Your task to perform on an android device: open app "Speedtest by Ookla" (install if not already installed) and go to login screen Image 0: 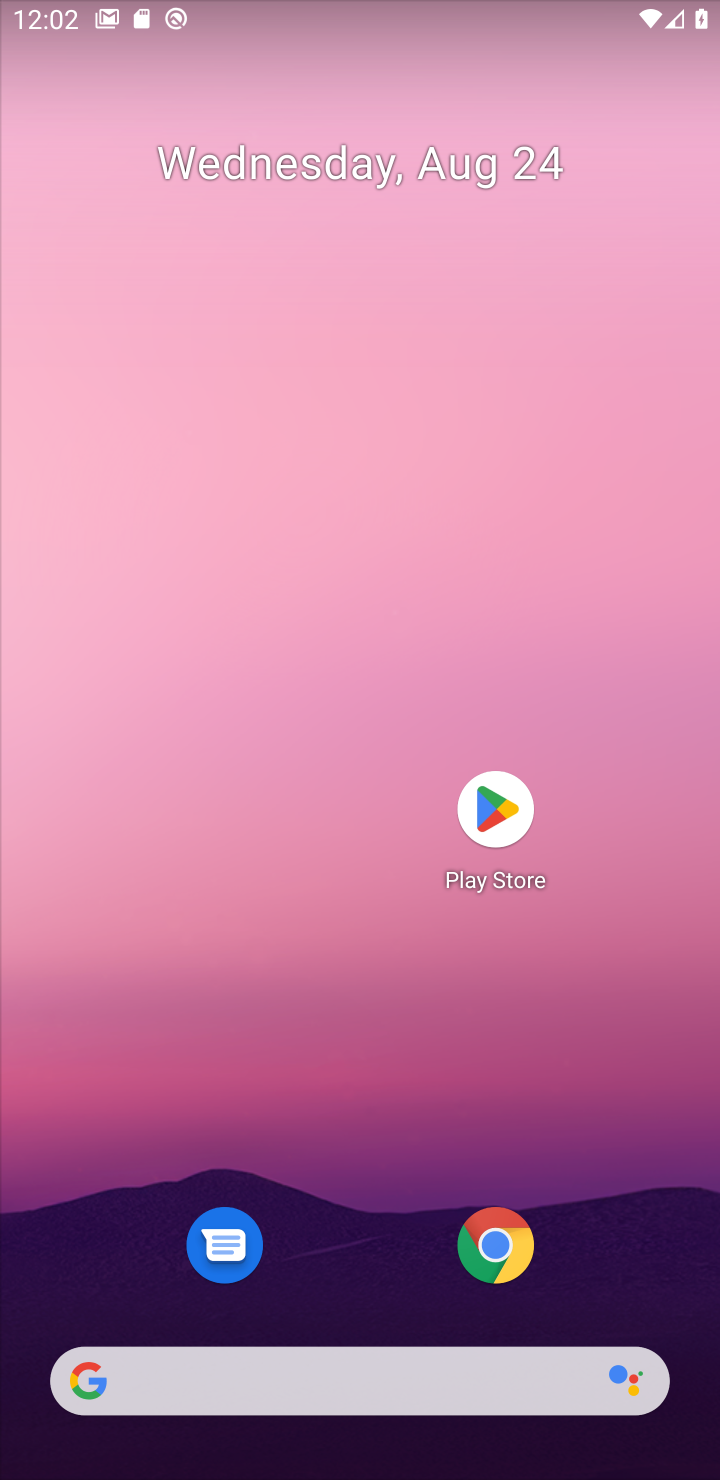
Step 0: press home button
Your task to perform on an android device: open app "Speedtest by Ookla" (install if not already installed) and go to login screen Image 1: 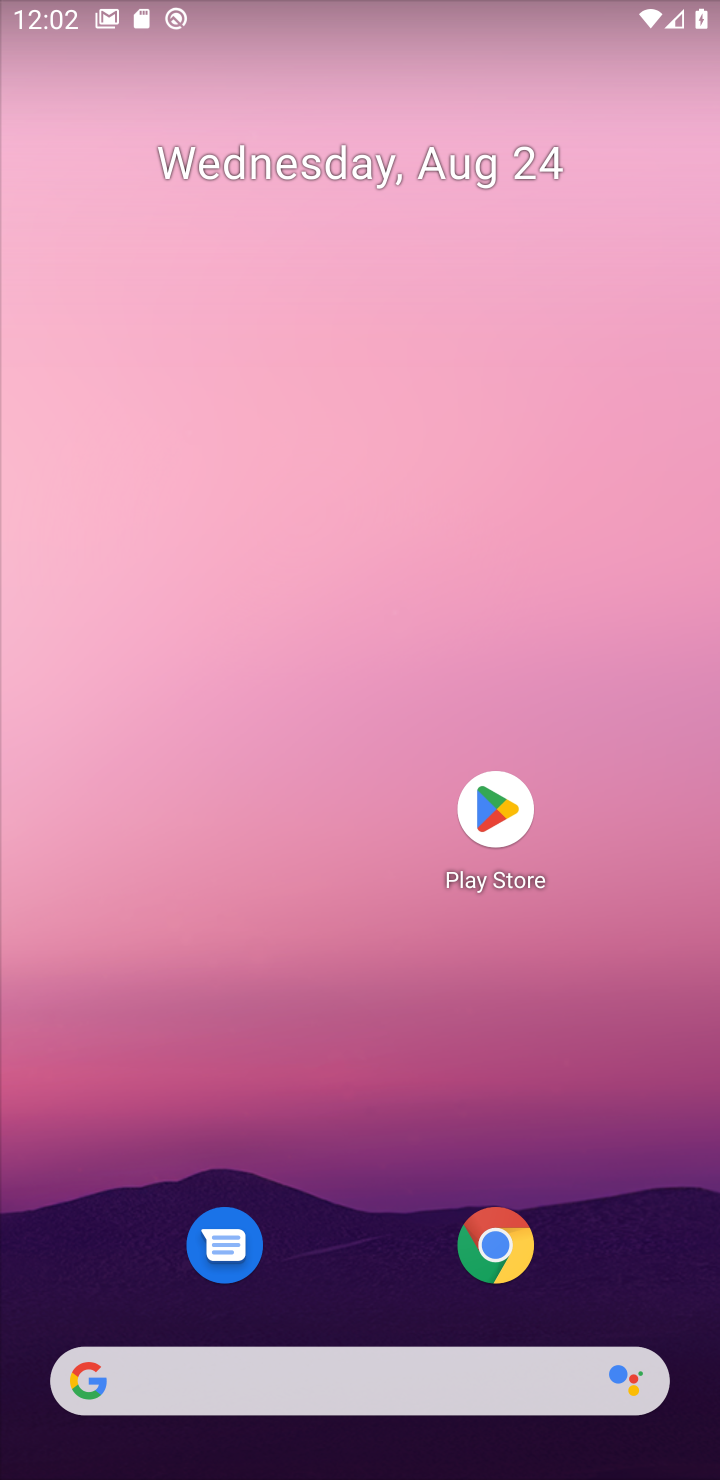
Step 1: click (499, 805)
Your task to perform on an android device: open app "Speedtest by Ookla" (install if not already installed) and go to login screen Image 2: 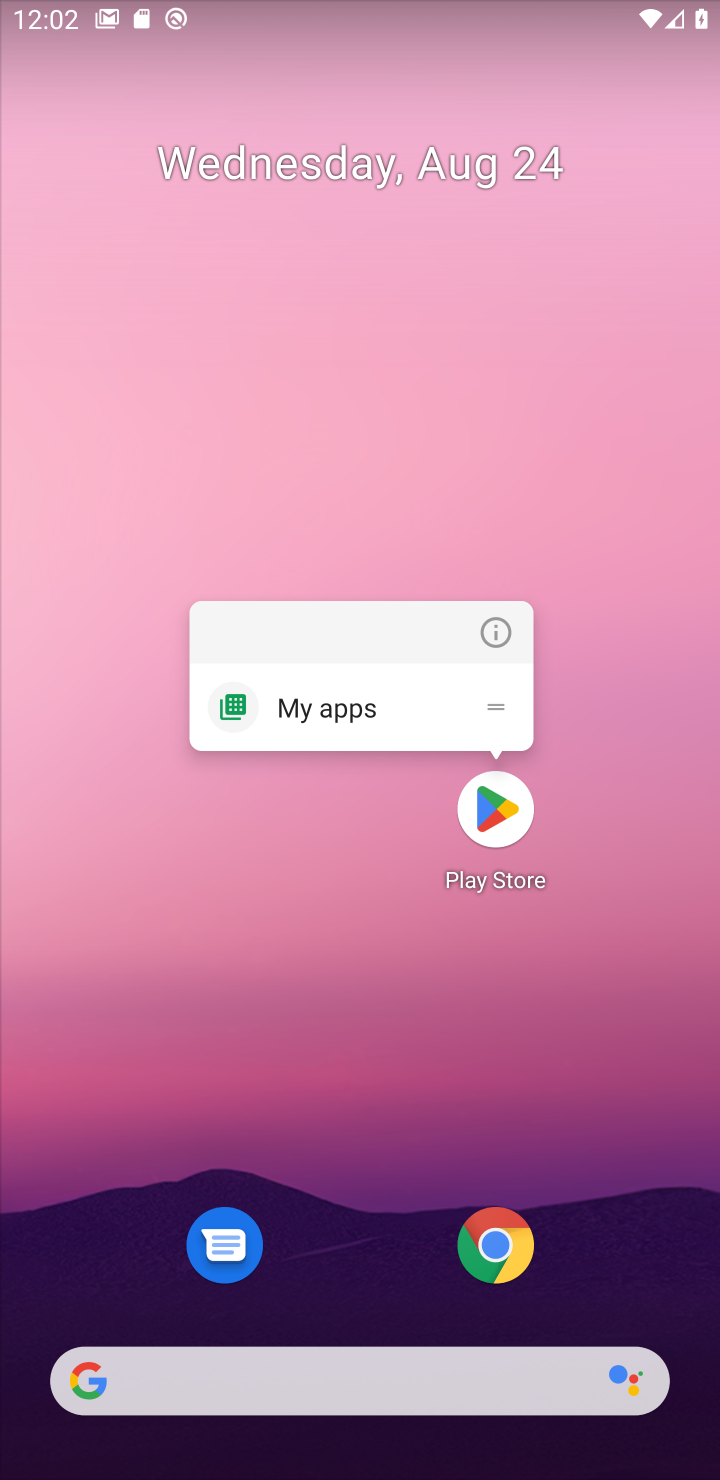
Step 2: click (499, 817)
Your task to perform on an android device: open app "Speedtest by Ookla" (install if not already installed) and go to login screen Image 3: 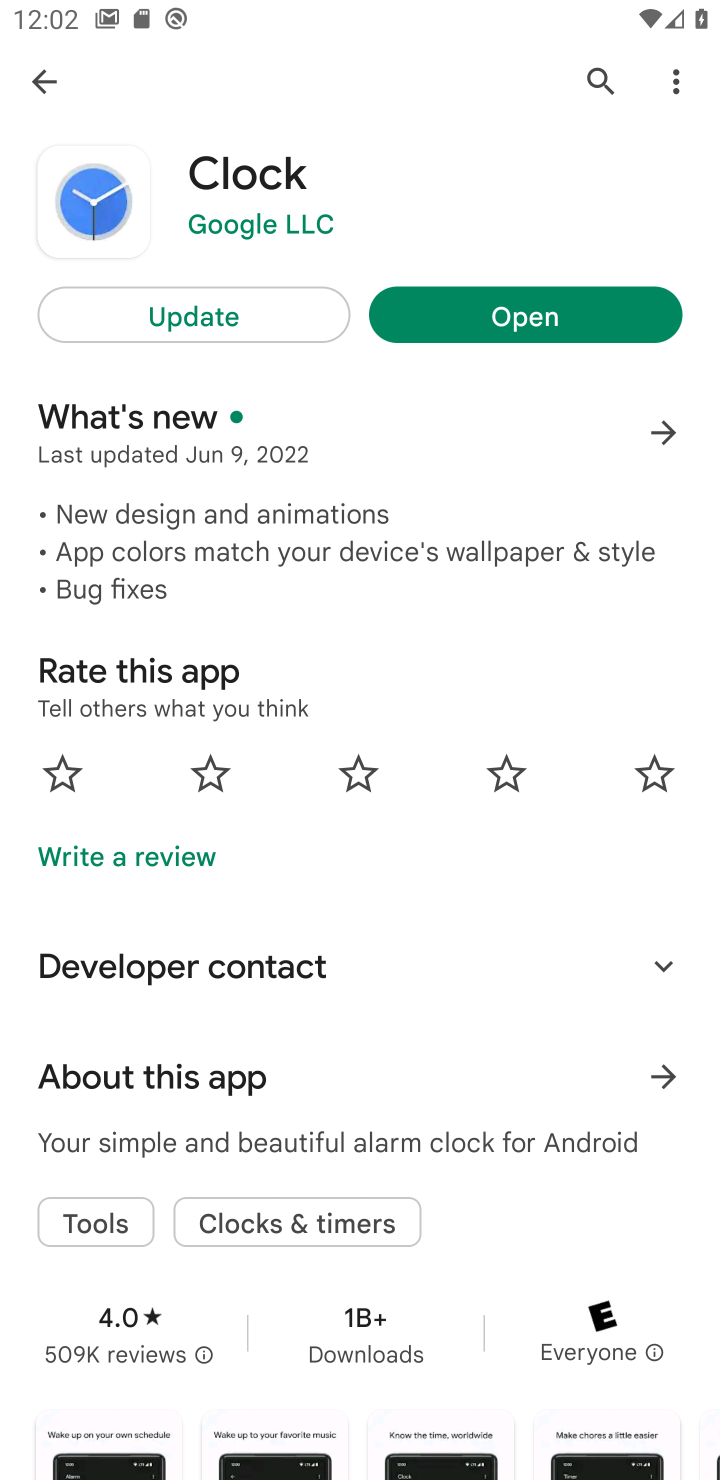
Step 3: click (590, 75)
Your task to perform on an android device: open app "Speedtest by Ookla" (install if not already installed) and go to login screen Image 4: 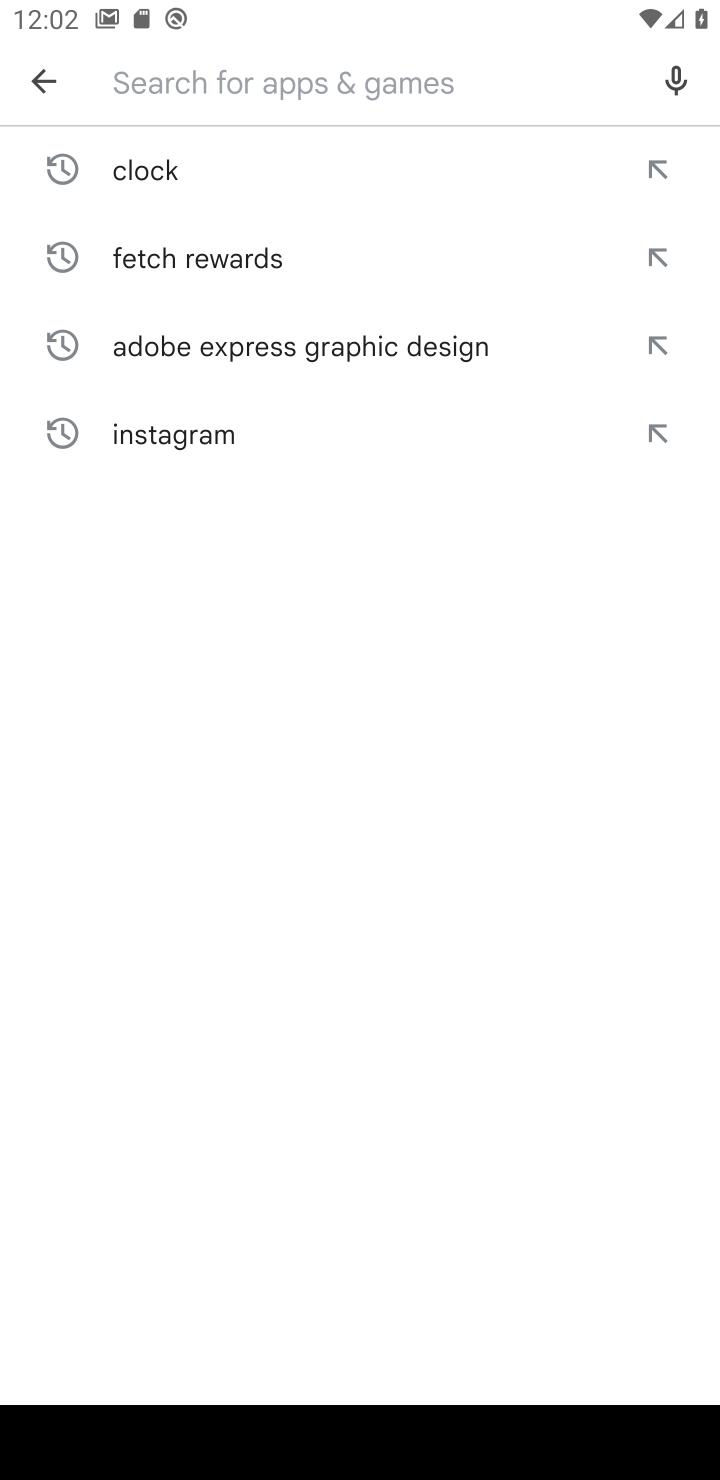
Step 4: type "Speedtest by Ookla"
Your task to perform on an android device: open app "Speedtest by Ookla" (install if not already installed) and go to login screen Image 5: 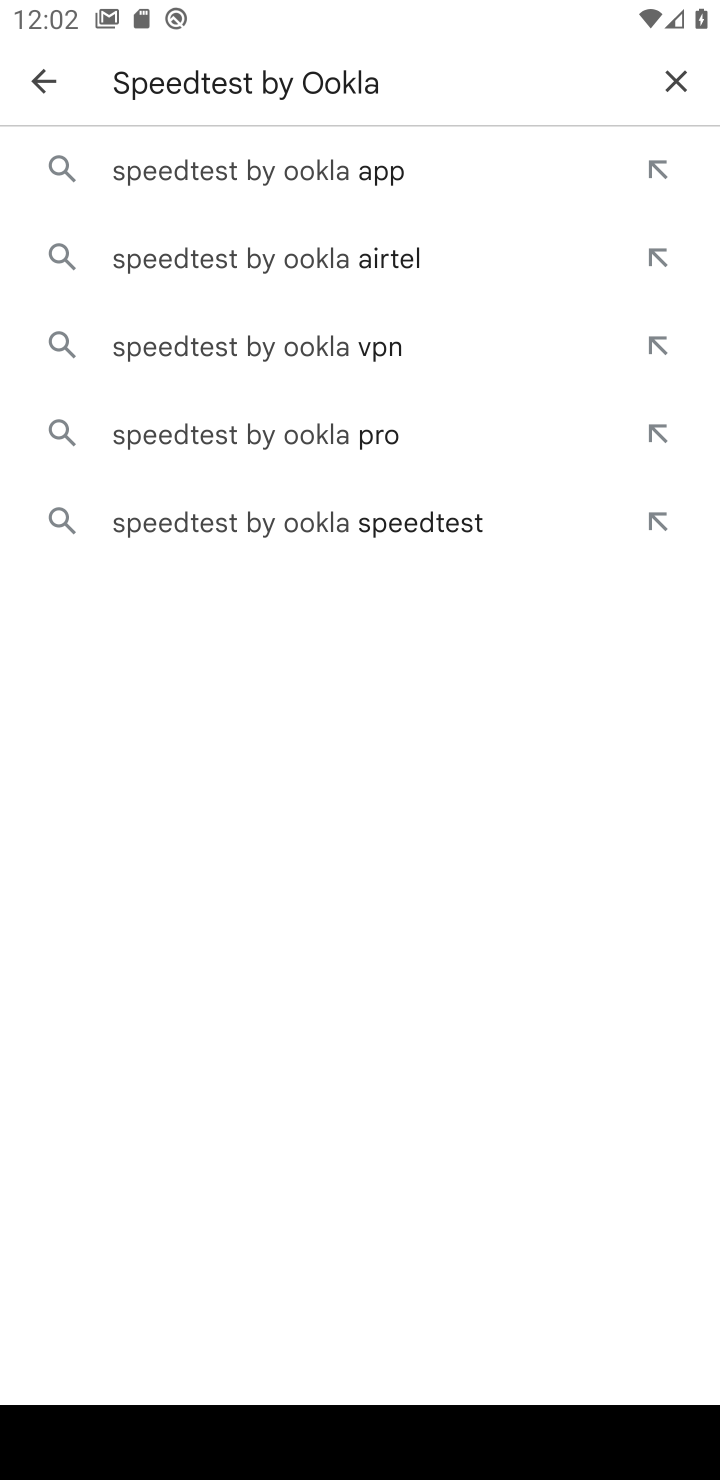
Step 5: click (248, 173)
Your task to perform on an android device: open app "Speedtest by Ookla" (install if not already installed) and go to login screen Image 6: 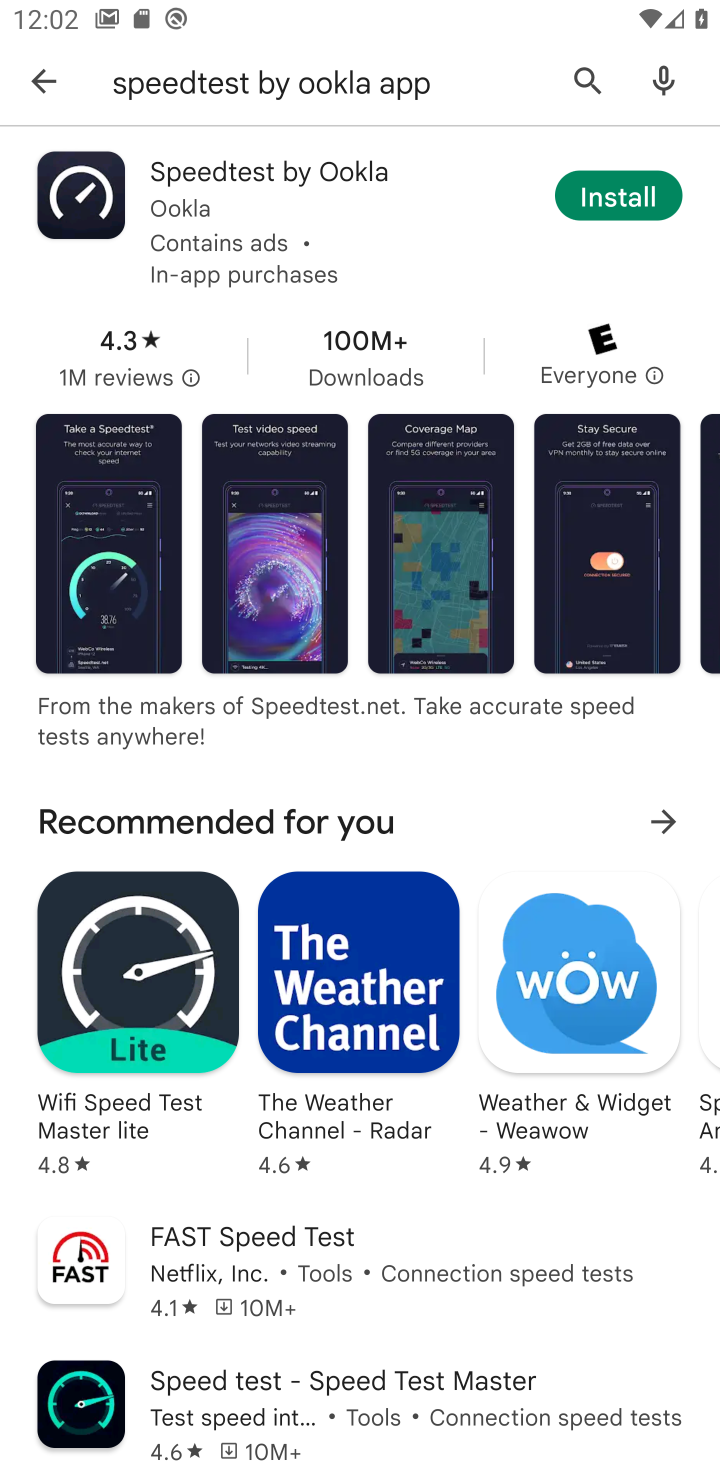
Step 6: click (637, 202)
Your task to perform on an android device: open app "Speedtest by Ookla" (install if not already installed) and go to login screen Image 7: 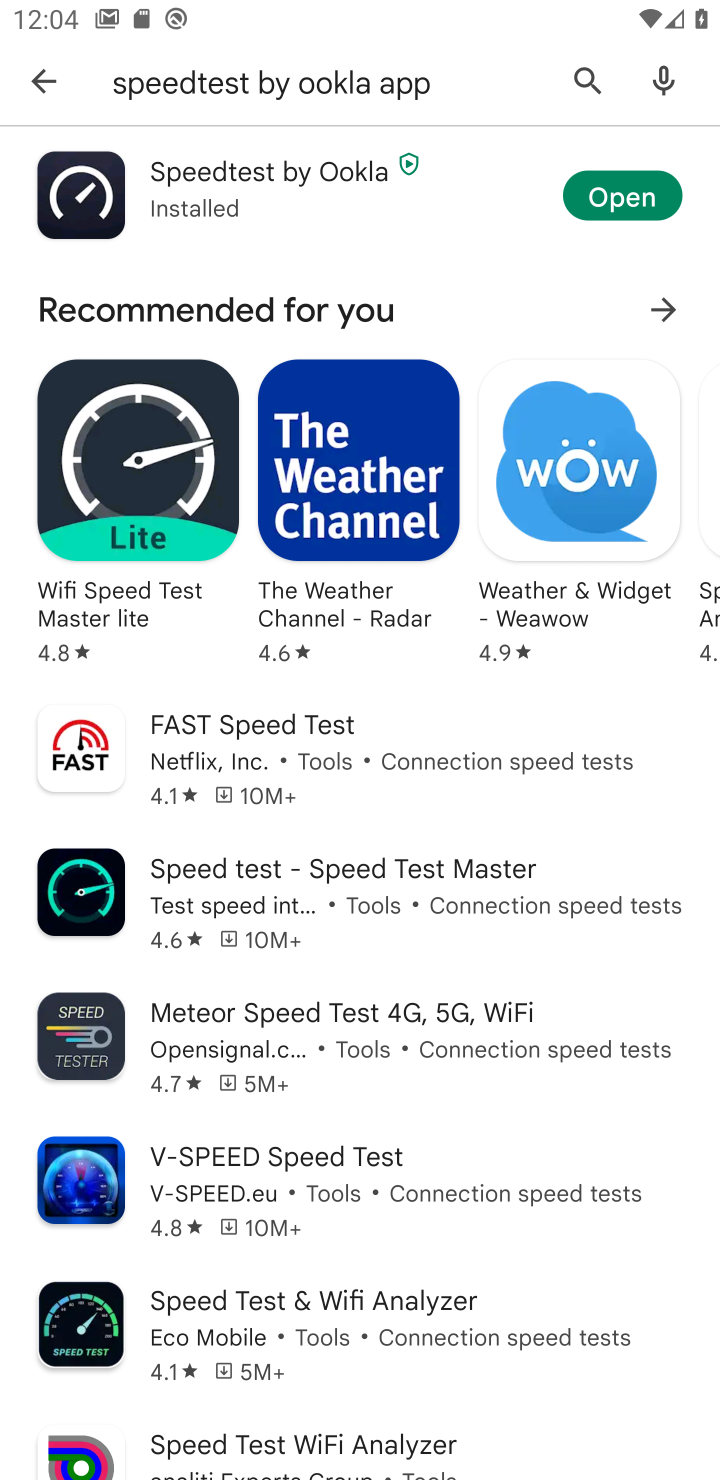
Step 7: click (633, 197)
Your task to perform on an android device: open app "Speedtest by Ookla" (install if not already installed) and go to login screen Image 8: 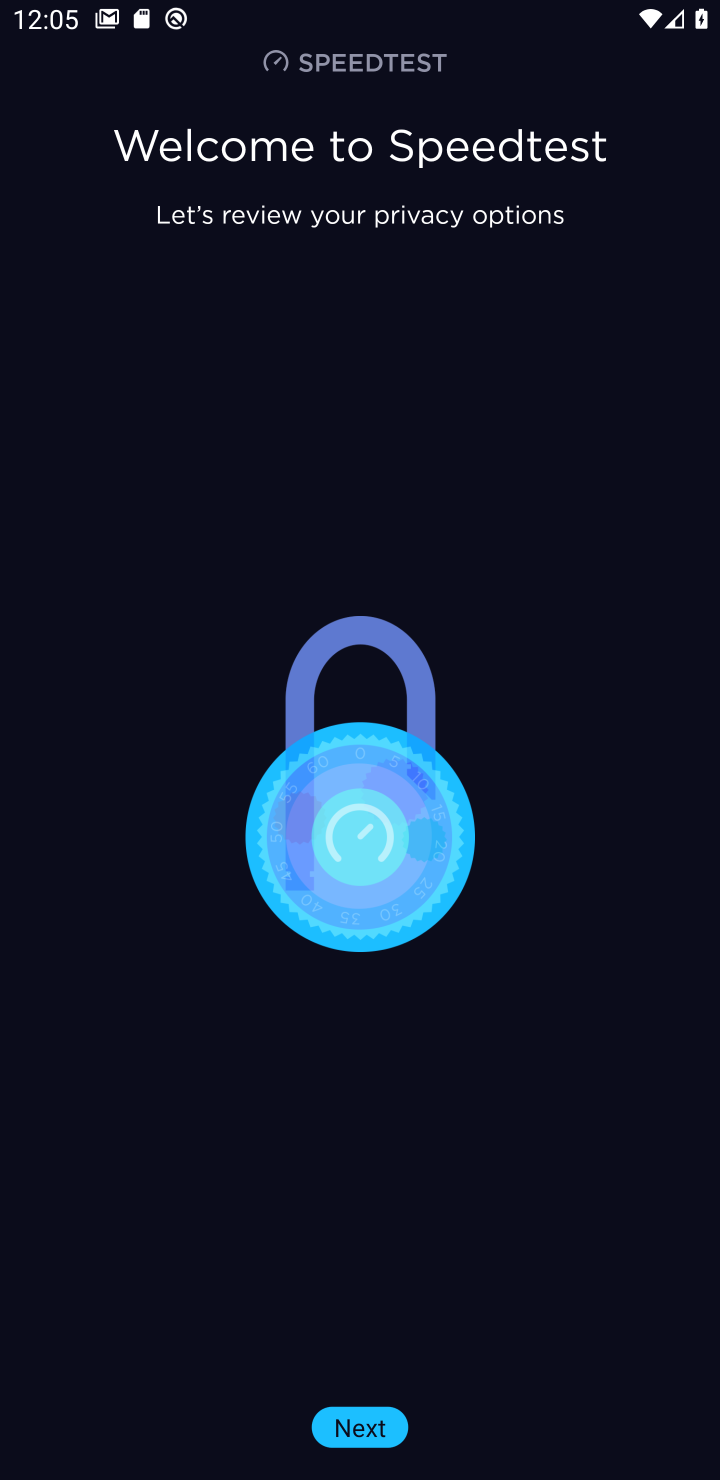
Step 8: click (358, 1442)
Your task to perform on an android device: open app "Speedtest by Ookla" (install if not already installed) and go to login screen Image 9: 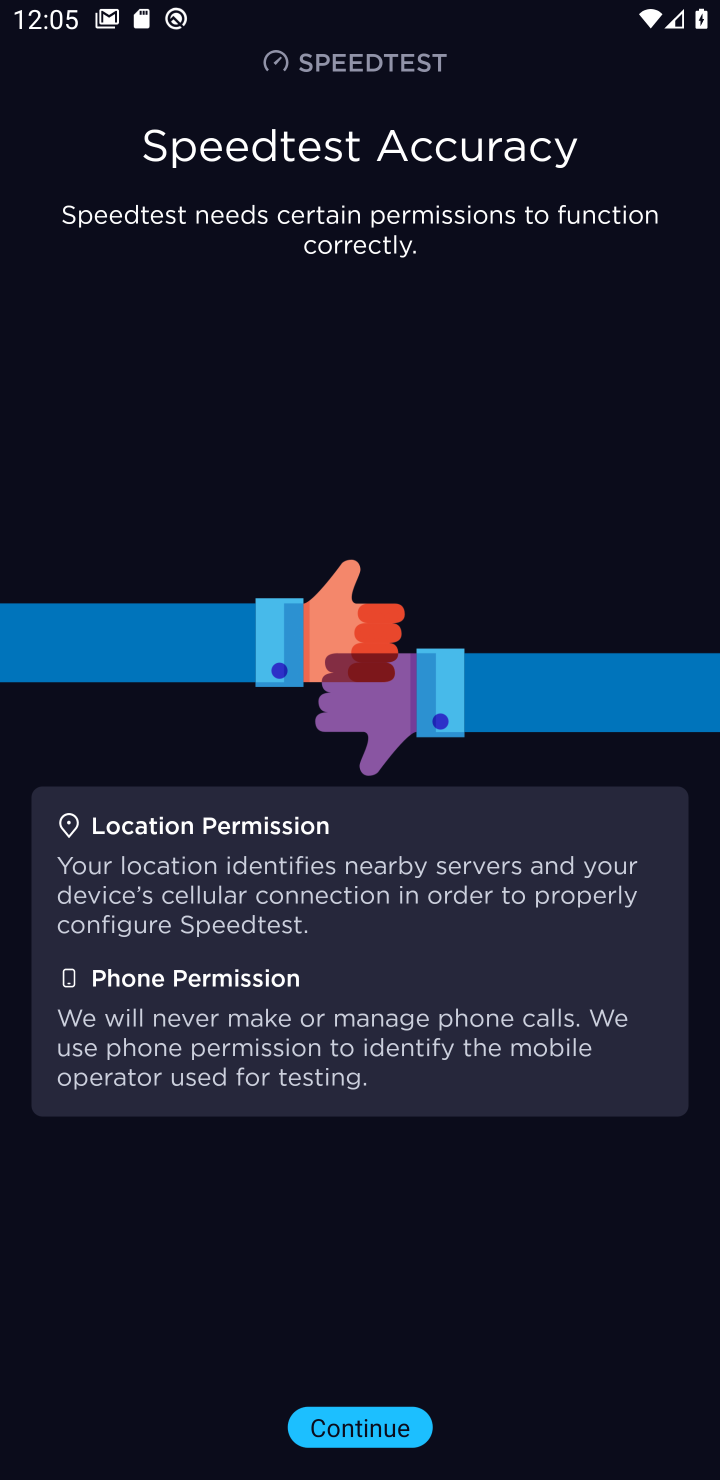
Step 9: click (360, 1442)
Your task to perform on an android device: open app "Speedtest by Ookla" (install if not already installed) and go to login screen Image 10: 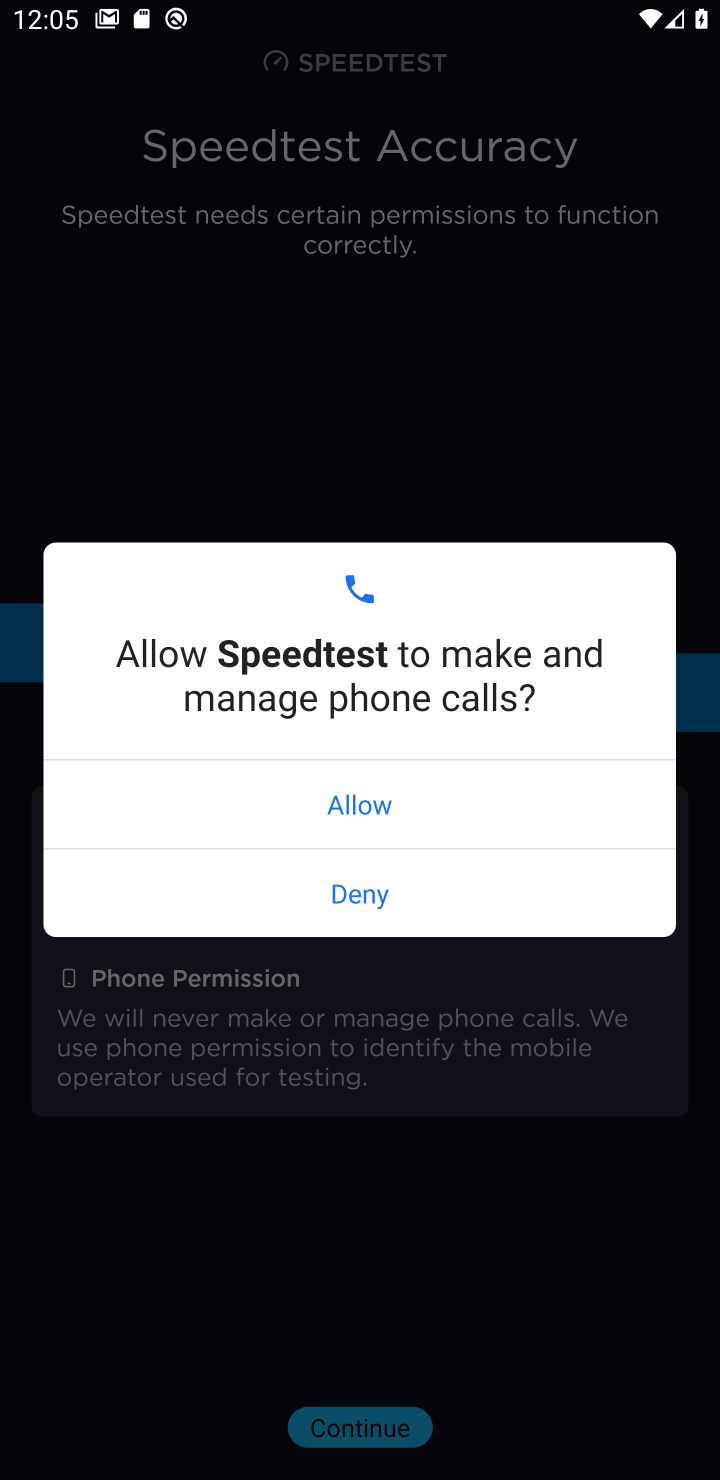
Step 10: click (404, 813)
Your task to perform on an android device: open app "Speedtest by Ookla" (install if not already installed) and go to login screen Image 11: 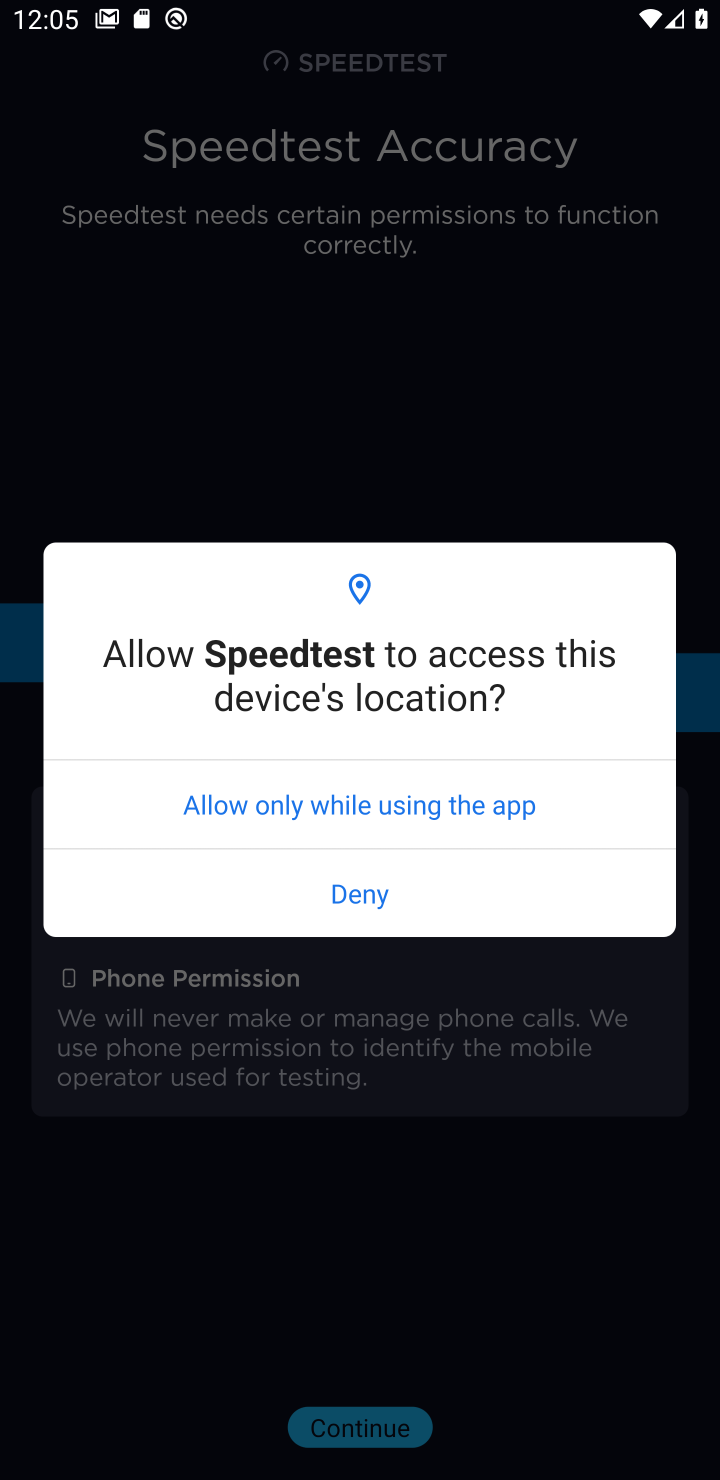
Step 11: click (432, 817)
Your task to perform on an android device: open app "Speedtest by Ookla" (install if not already installed) and go to login screen Image 12: 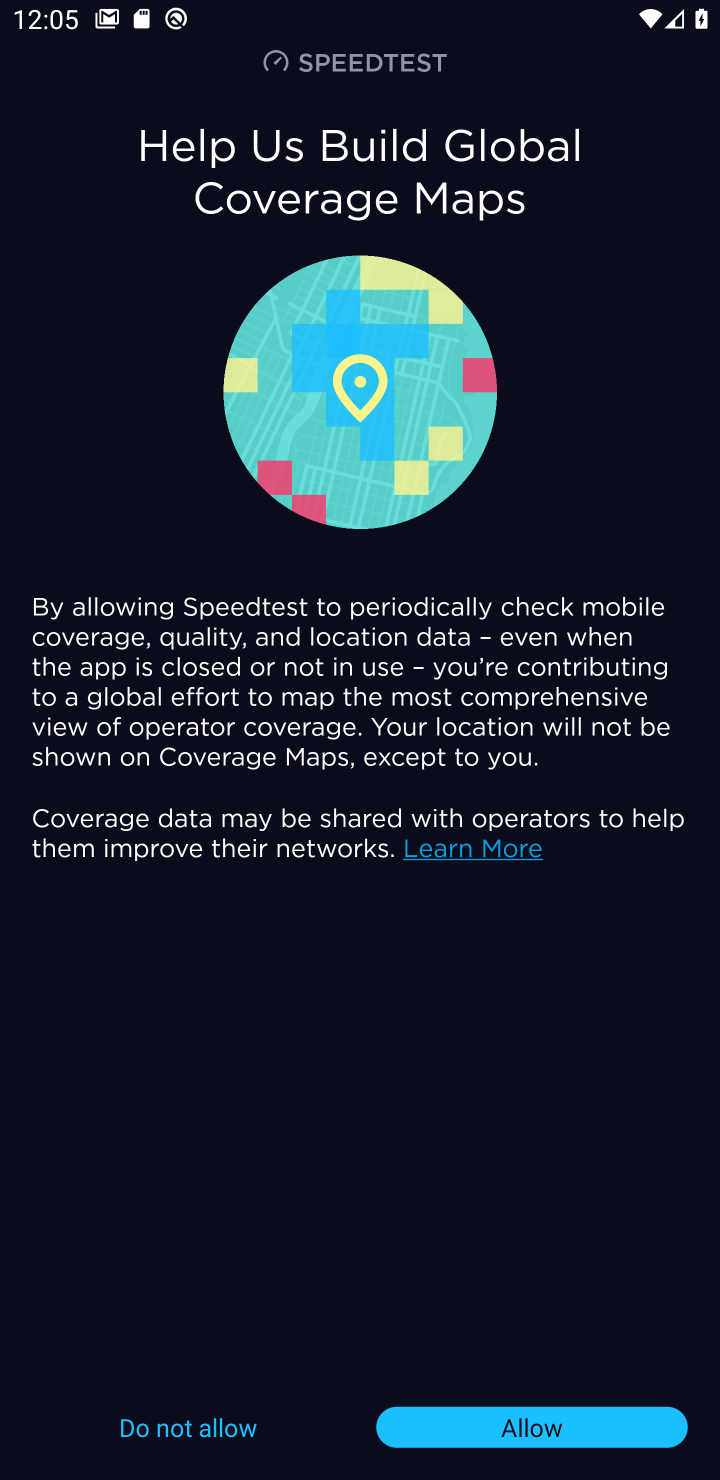
Step 12: task complete